Your task to perform on an android device: Open ESPN.com Image 0: 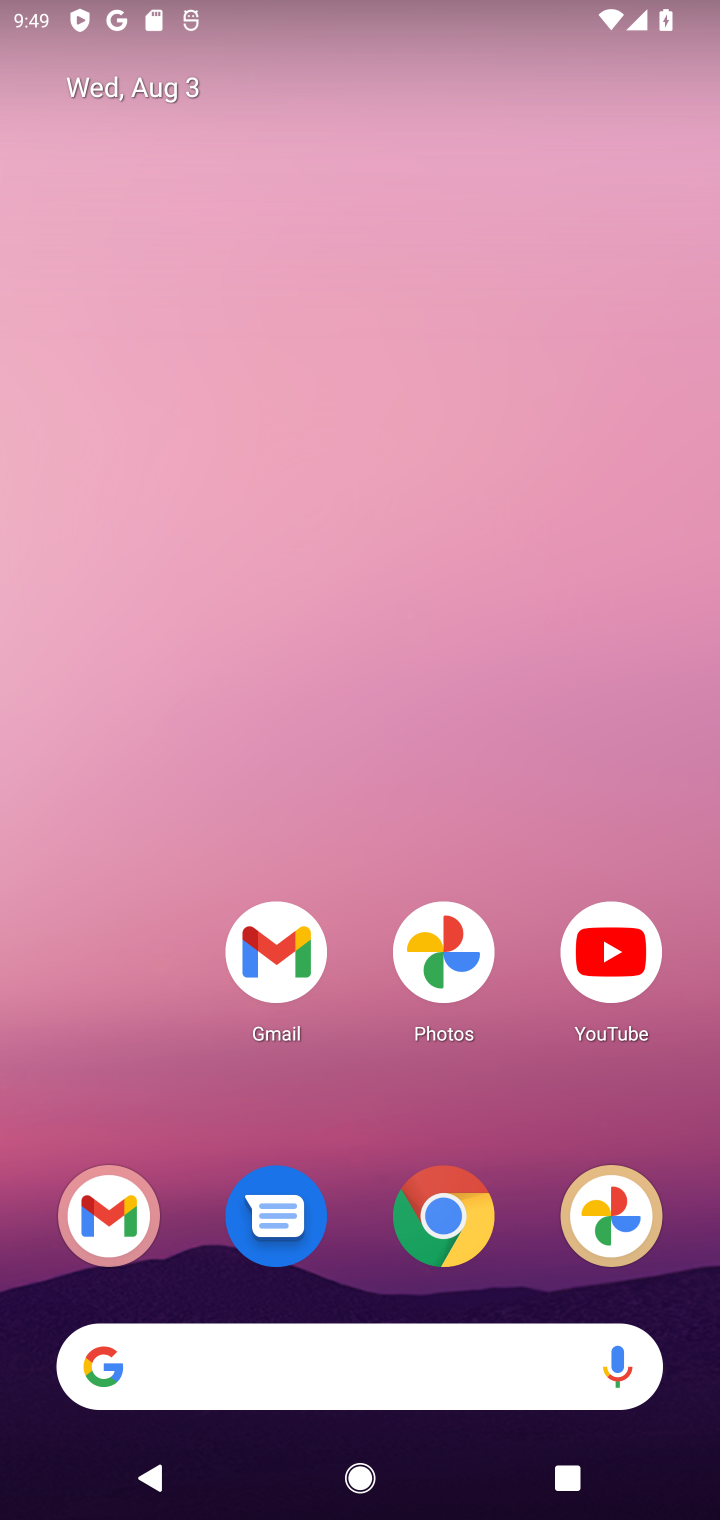
Step 0: press back button
Your task to perform on an android device: Open ESPN.com Image 1: 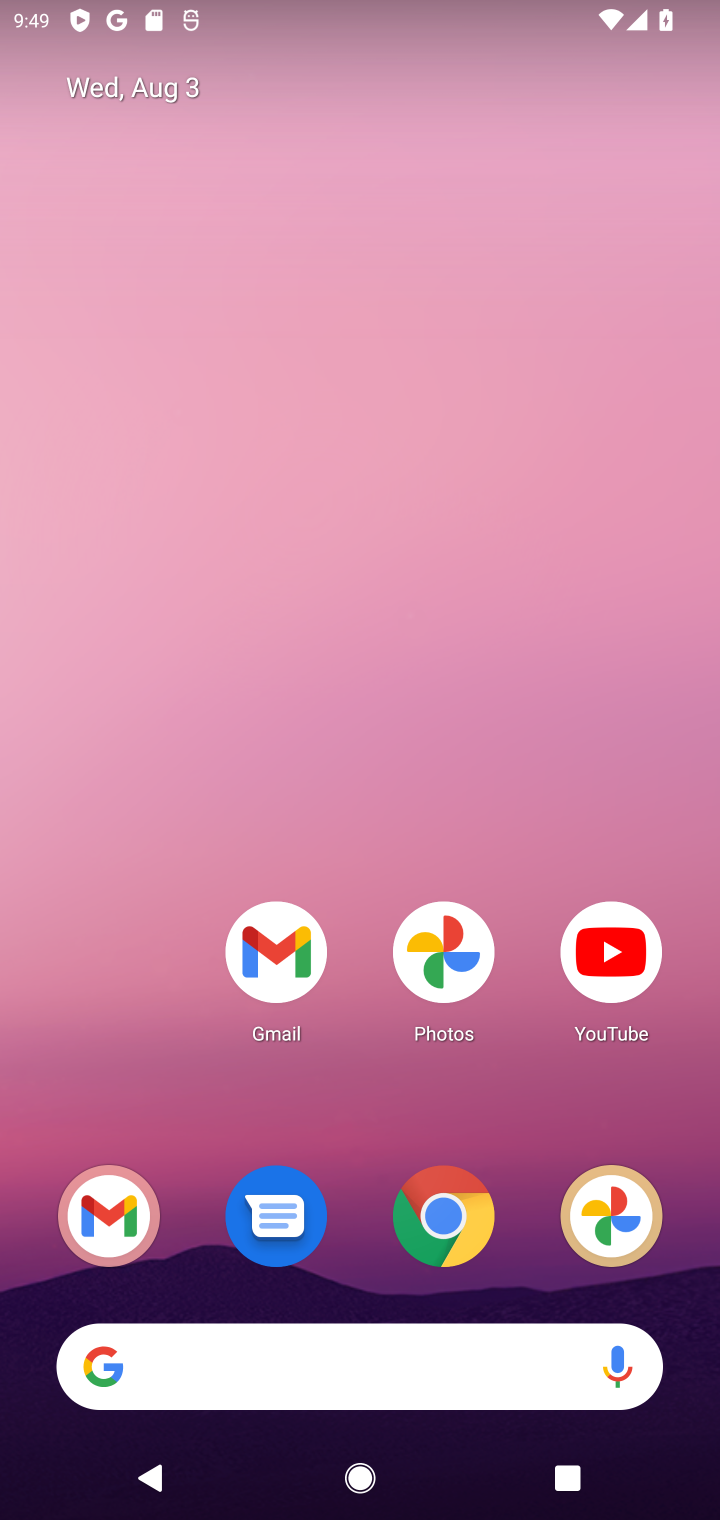
Step 1: click (436, 1192)
Your task to perform on an android device: Open ESPN.com Image 2: 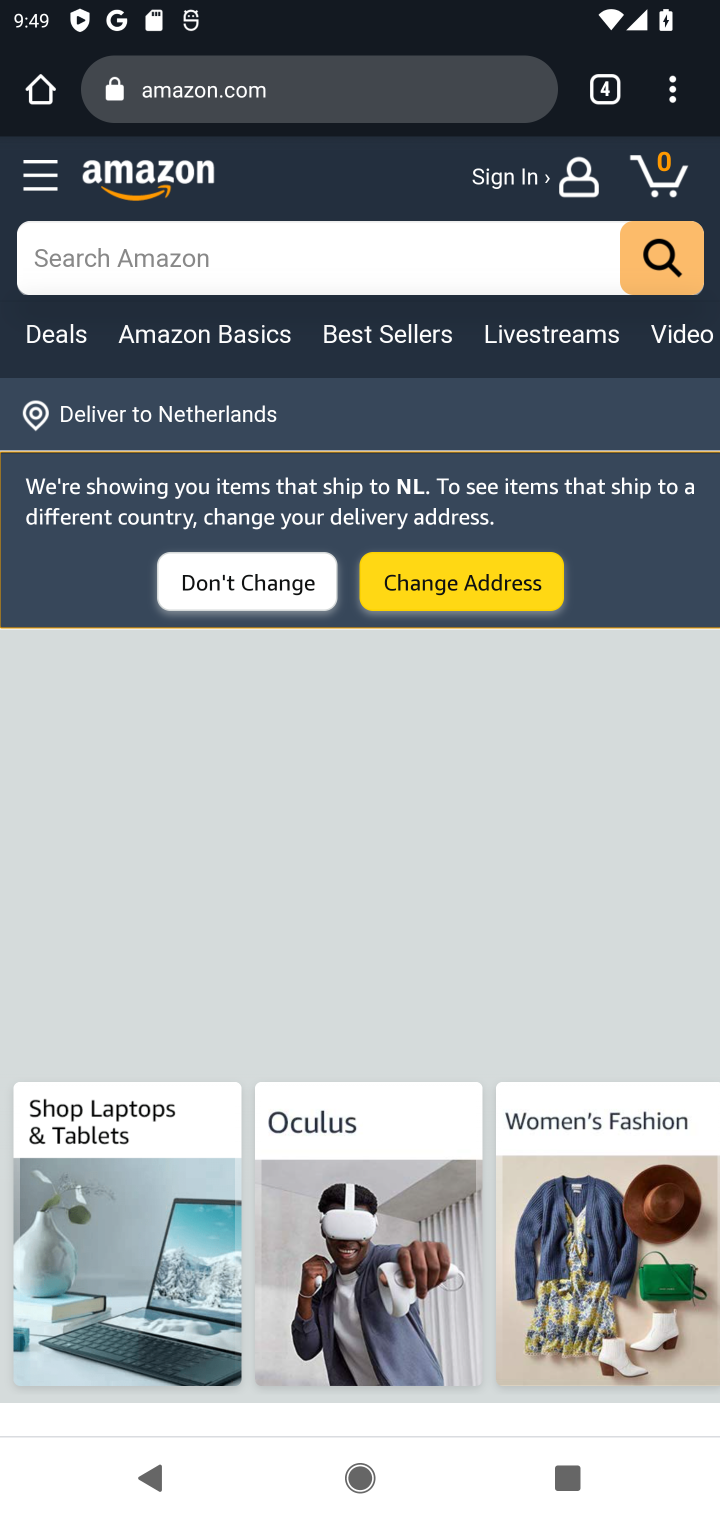
Step 2: click (609, 100)
Your task to perform on an android device: Open ESPN.com Image 3: 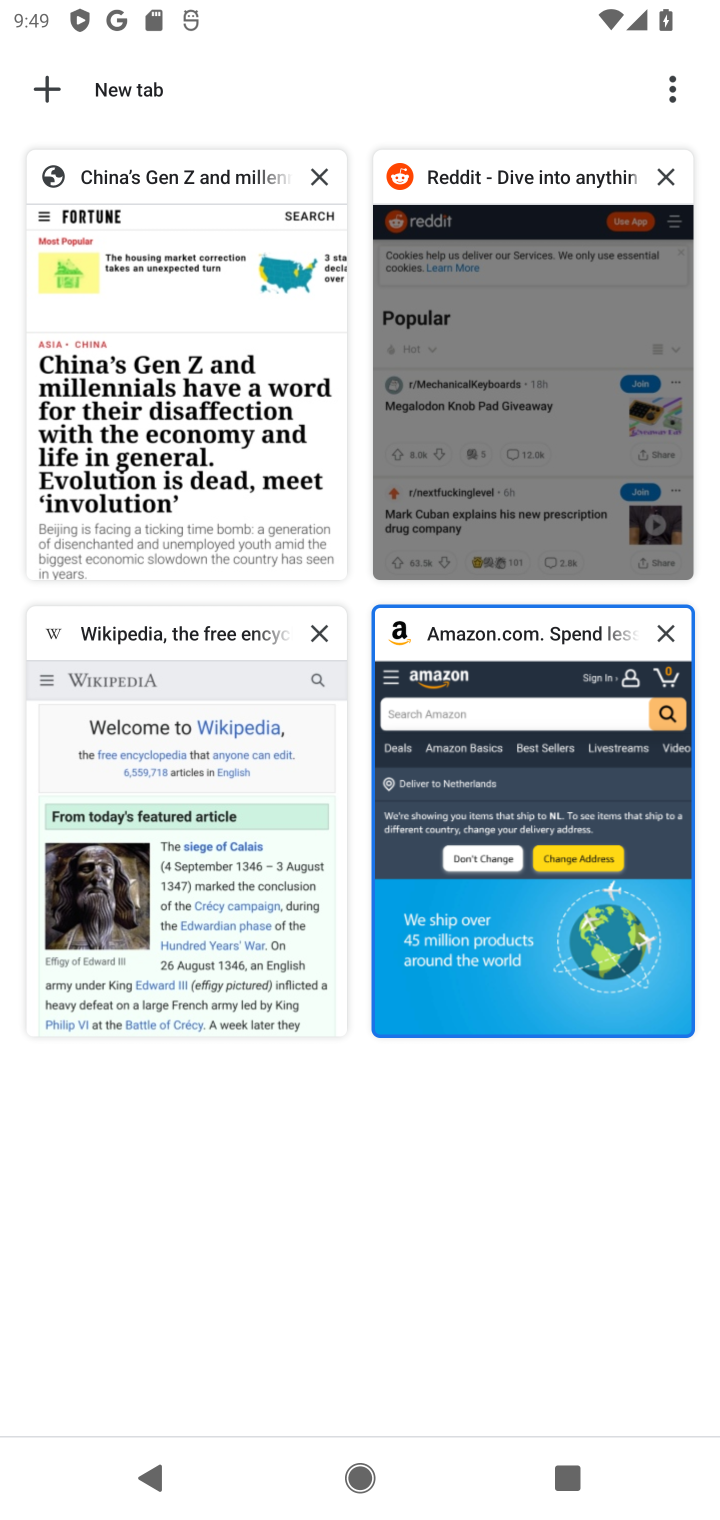
Step 3: click (65, 95)
Your task to perform on an android device: Open ESPN.com Image 4: 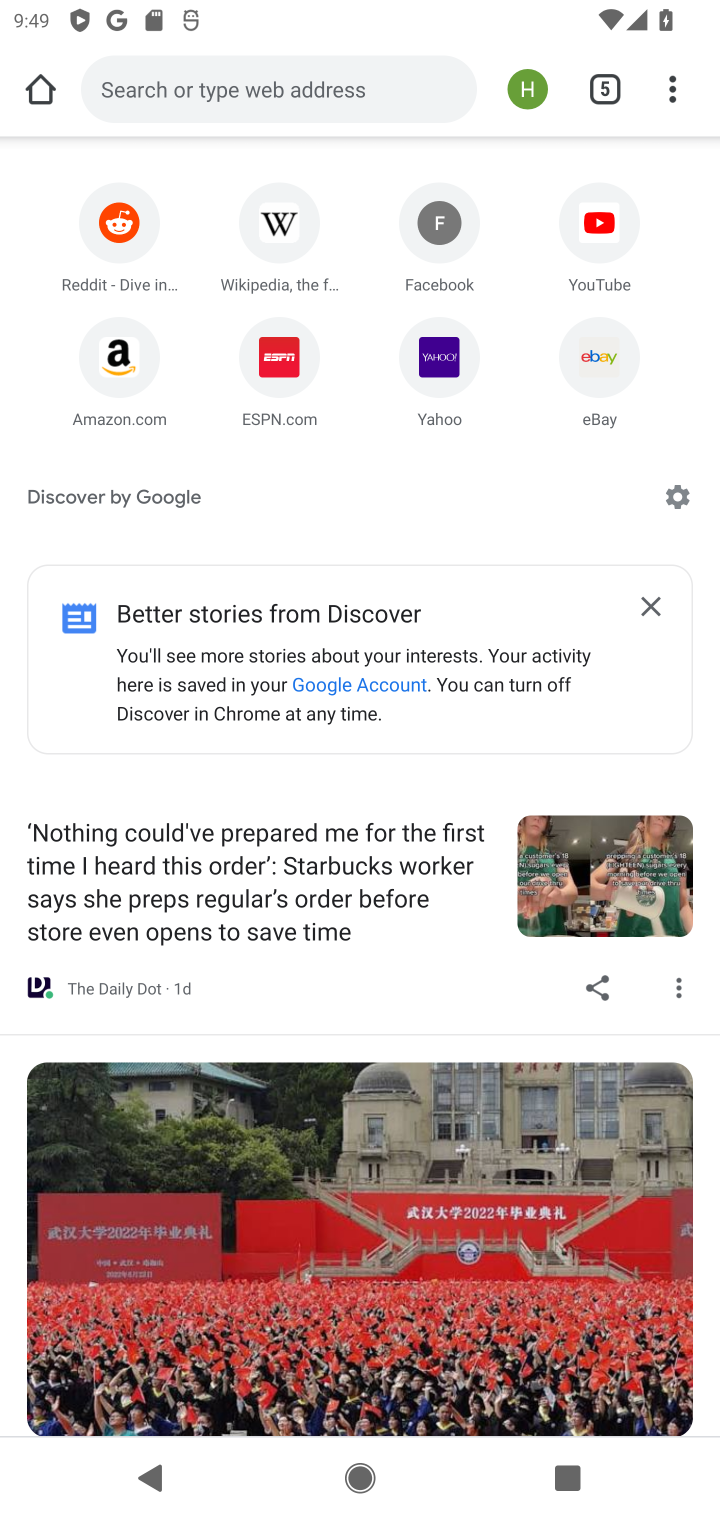
Step 4: click (284, 363)
Your task to perform on an android device: Open ESPN.com Image 5: 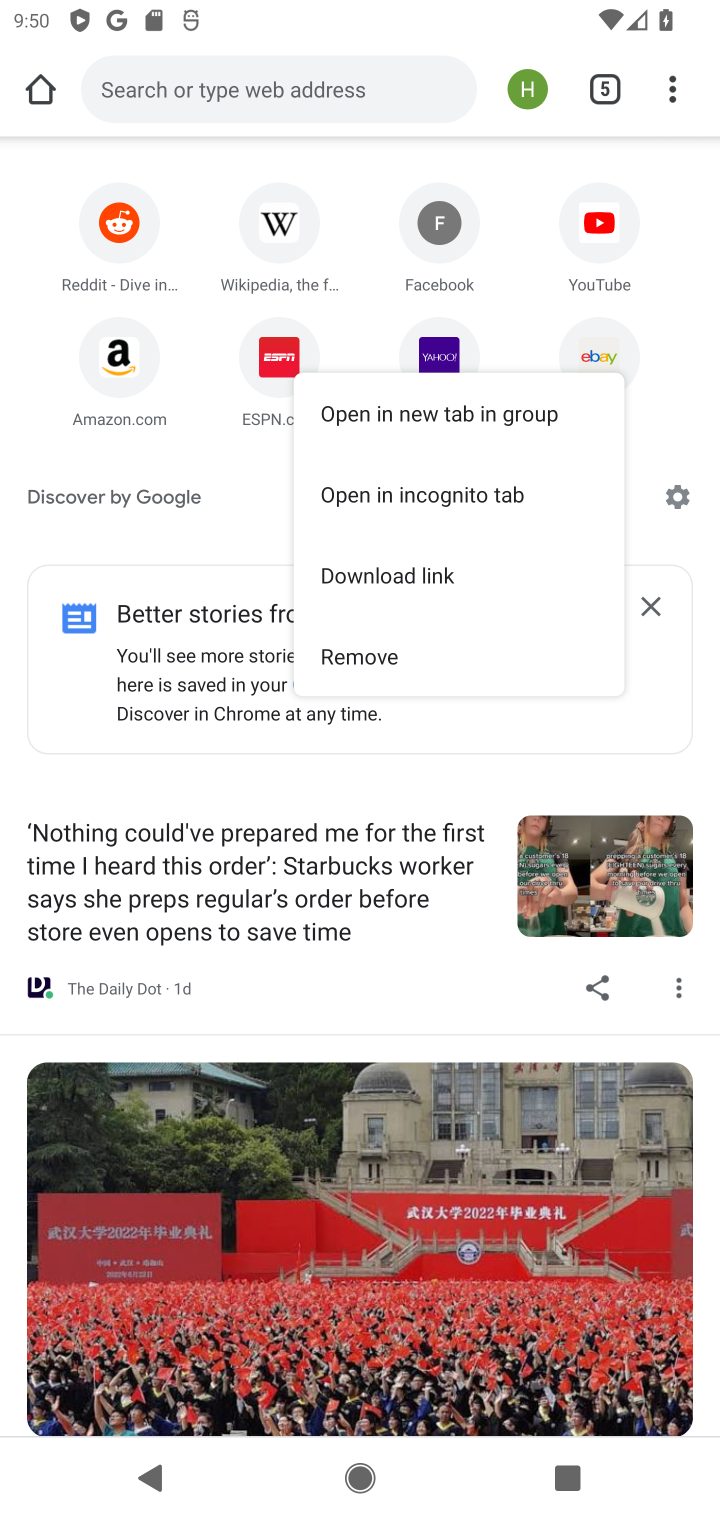
Step 5: click (258, 383)
Your task to perform on an android device: Open ESPN.com Image 6: 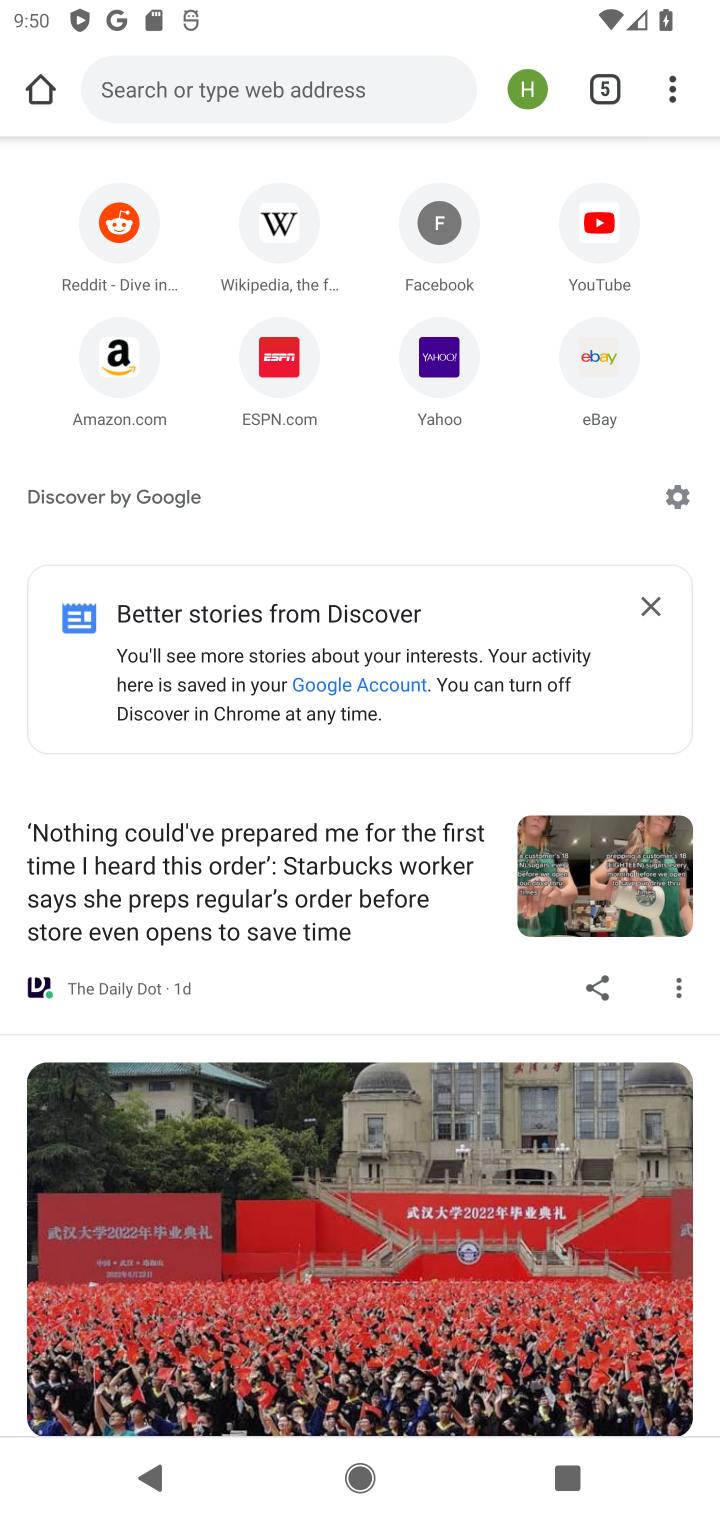
Step 6: click (276, 356)
Your task to perform on an android device: Open ESPN.com Image 7: 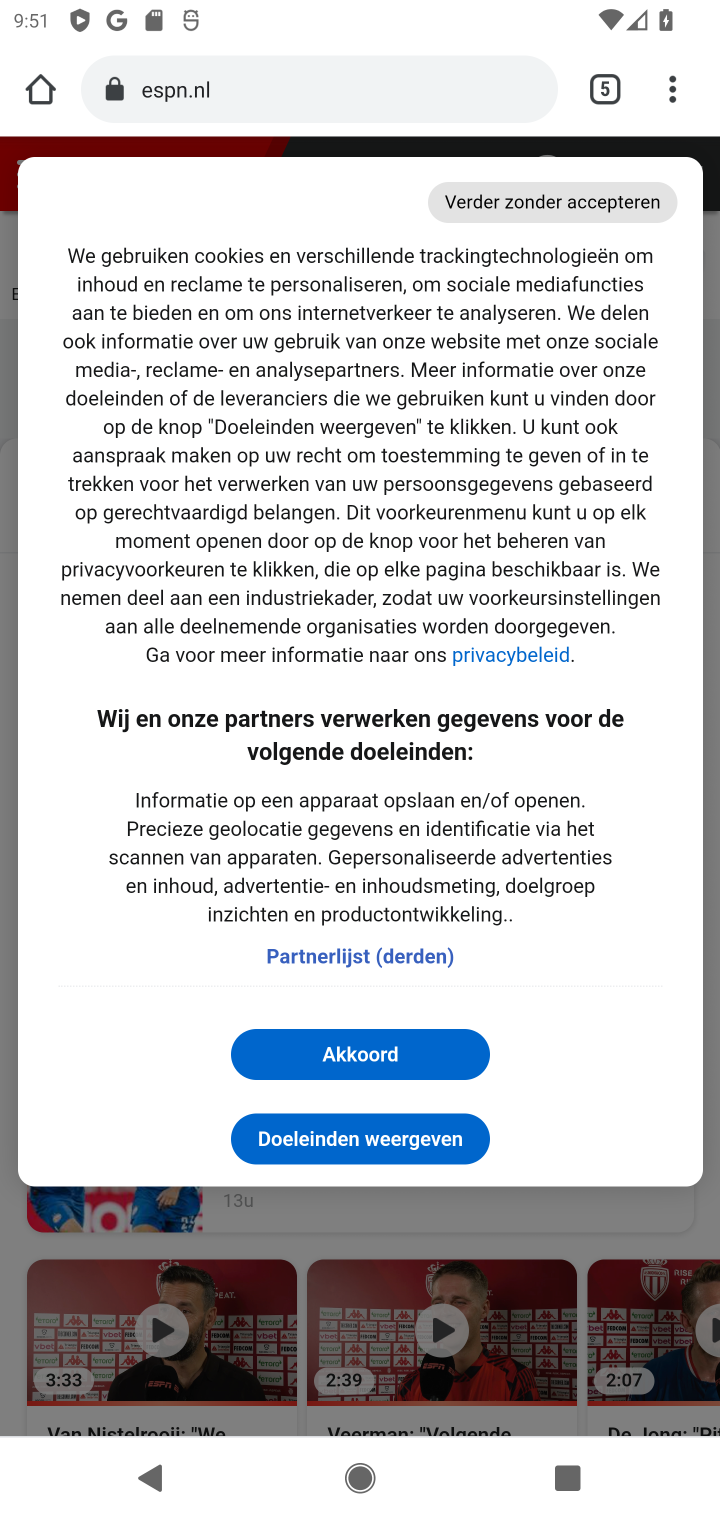
Step 7: task complete